Your task to perform on an android device: find photos in the google photos app Image 0: 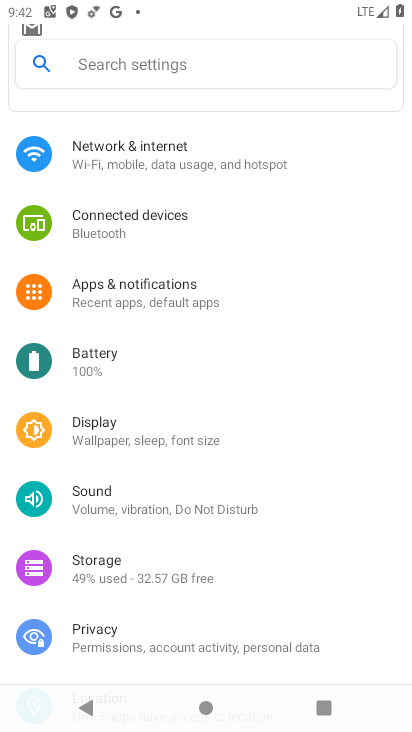
Step 0: press home button
Your task to perform on an android device: find photos in the google photos app Image 1: 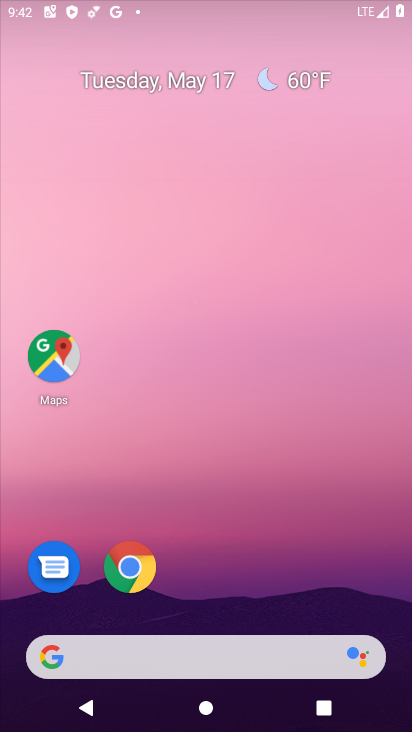
Step 1: drag from (367, 643) to (235, 0)
Your task to perform on an android device: find photos in the google photos app Image 2: 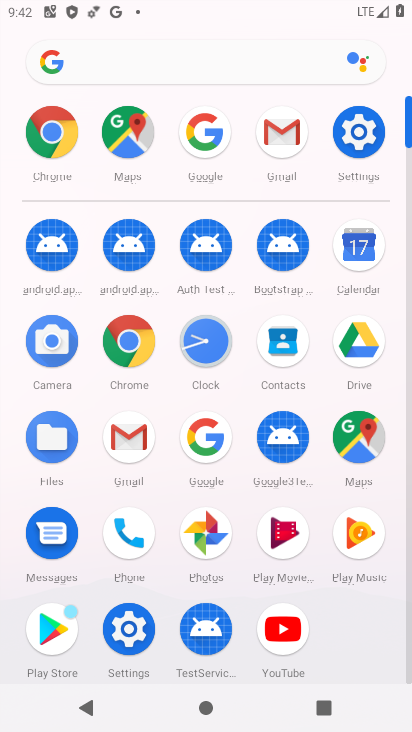
Step 2: click (216, 538)
Your task to perform on an android device: find photos in the google photos app Image 3: 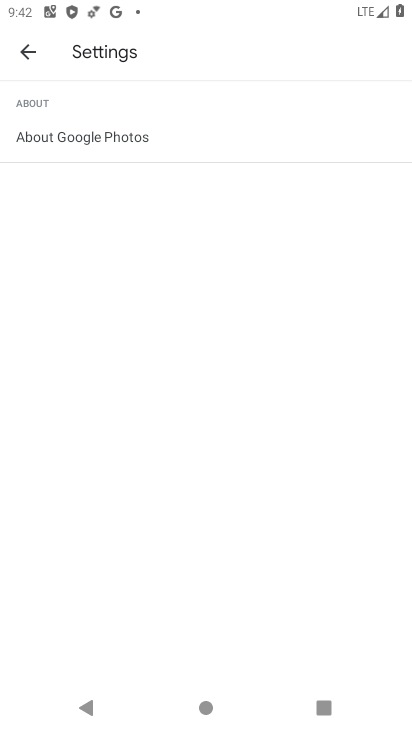
Step 3: task complete